Your task to perform on an android device: Open Reddit.com Image 0: 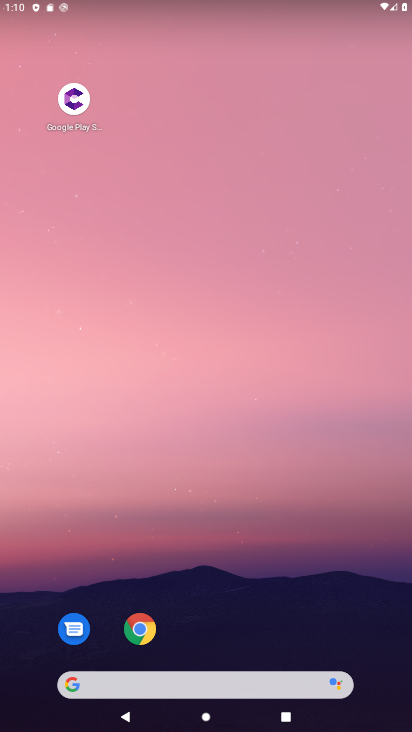
Step 0: drag from (171, 656) to (217, 245)
Your task to perform on an android device: Open Reddit.com Image 1: 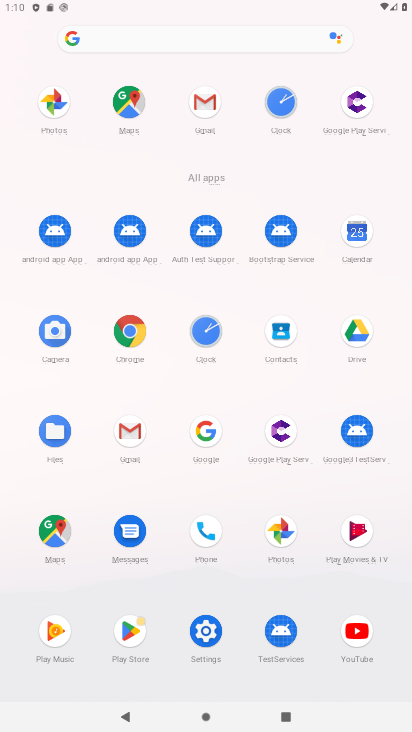
Step 1: click (118, 37)
Your task to perform on an android device: Open Reddit.com Image 2: 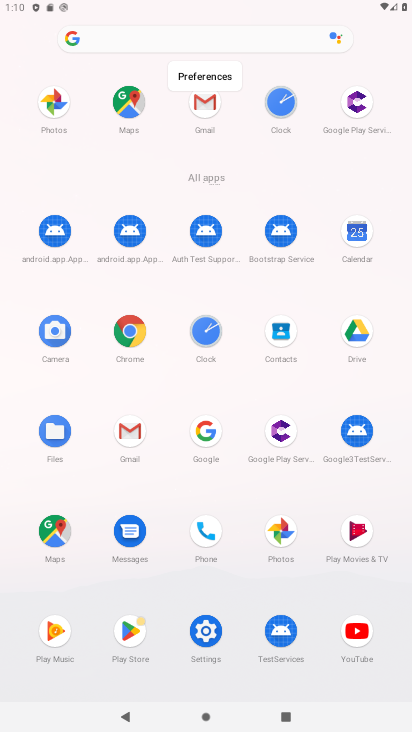
Step 2: click (100, 34)
Your task to perform on an android device: Open Reddit.com Image 3: 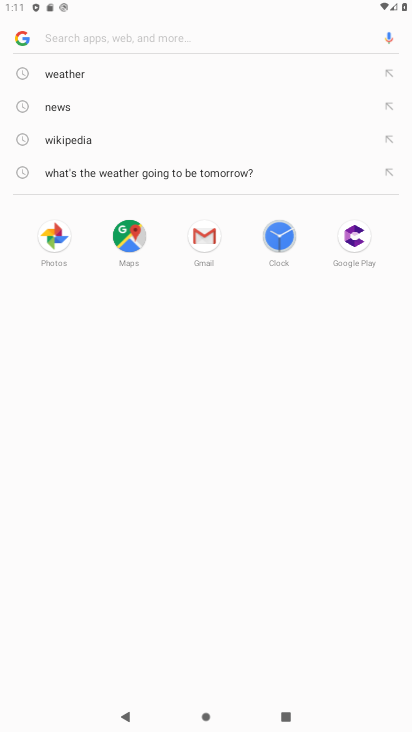
Step 3: type "Reddit.com"
Your task to perform on an android device: Open Reddit.com Image 4: 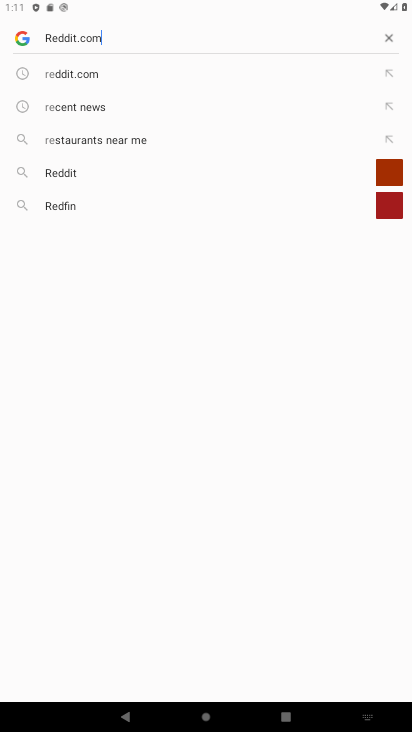
Step 4: type ""
Your task to perform on an android device: Open Reddit.com Image 5: 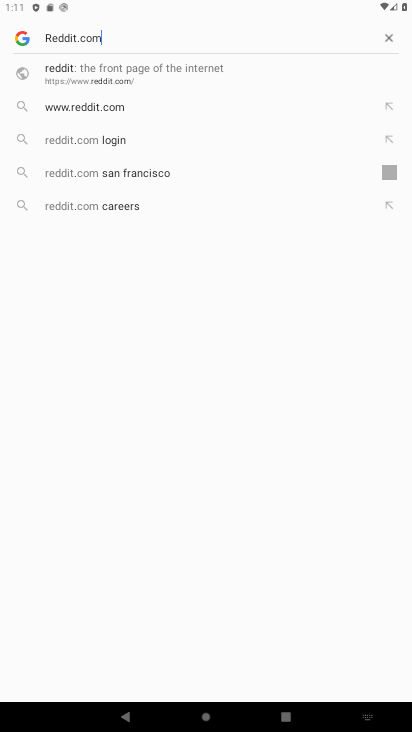
Step 5: click (71, 109)
Your task to perform on an android device: Open Reddit.com Image 6: 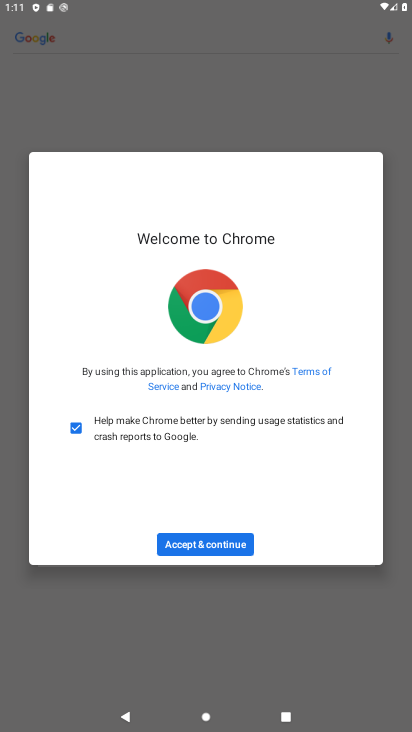
Step 6: click (189, 542)
Your task to perform on an android device: Open Reddit.com Image 7: 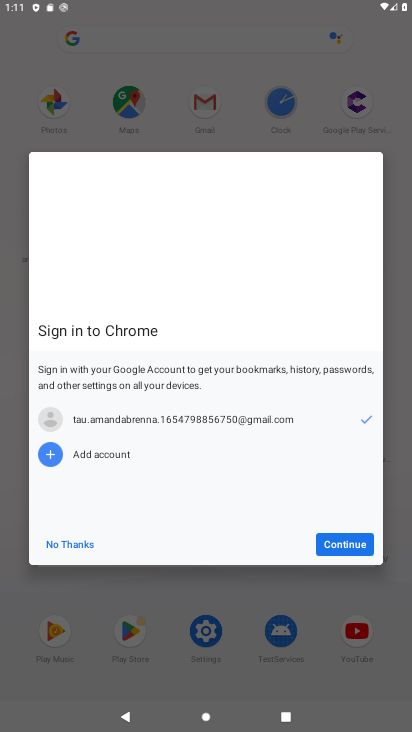
Step 7: click (338, 549)
Your task to perform on an android device: Open Reddit.com Image 8: 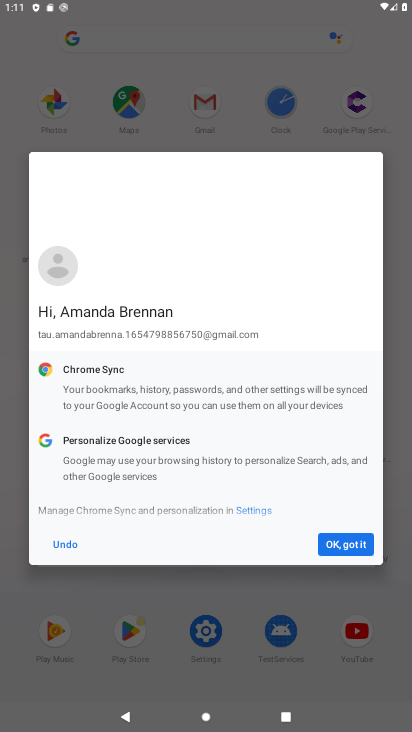
Step 8: click (345, 540)
Your task to perform on an android device: Open Reddit.com Image 9: 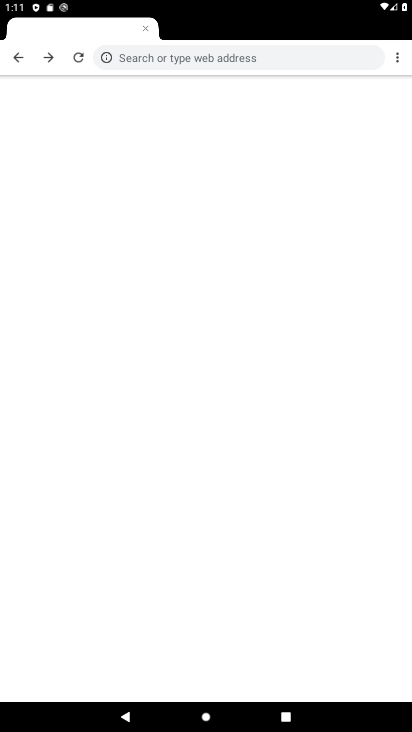
Step 9: task complete